Your task to perform on an android device: turn pop-ups off in chrome Image 0: 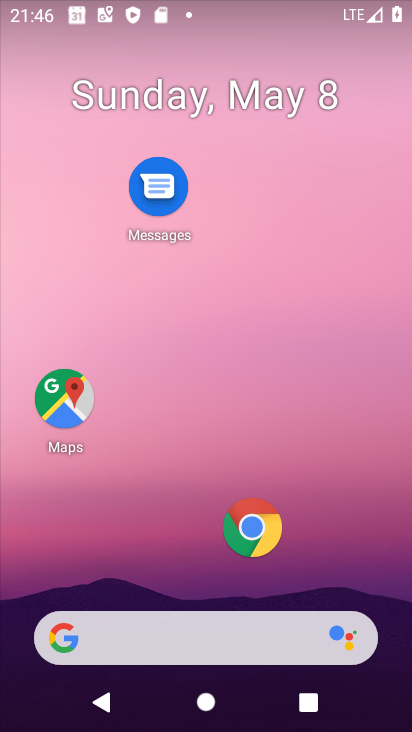
Step 0: click (254, 527)
Your task to perform on an android device: turn pop-ups off in chrome Image 1: 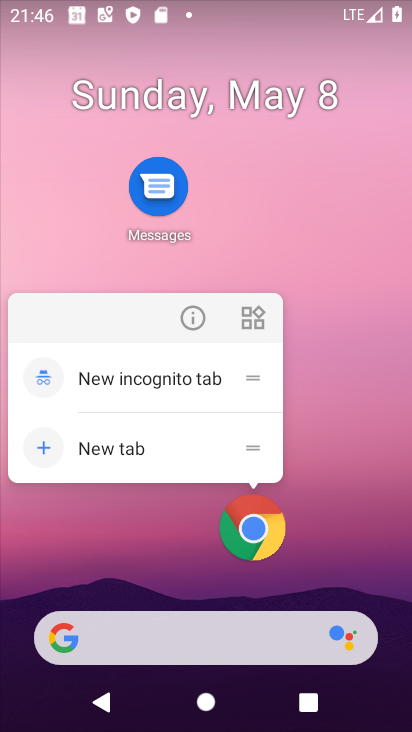
Step 1: click (362, 416)
Your task to perform on an android device: turn pop-ups off in chrome Image 2: 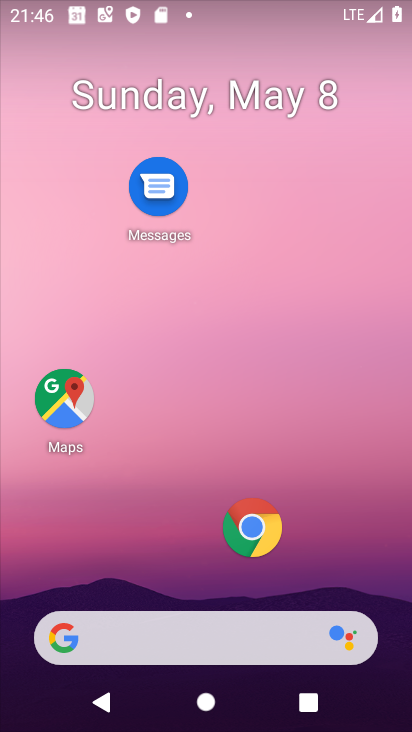
Step 2: click (261, 529)
Your task to perform on an android device: turn pop-ups off in chrome Image 3: 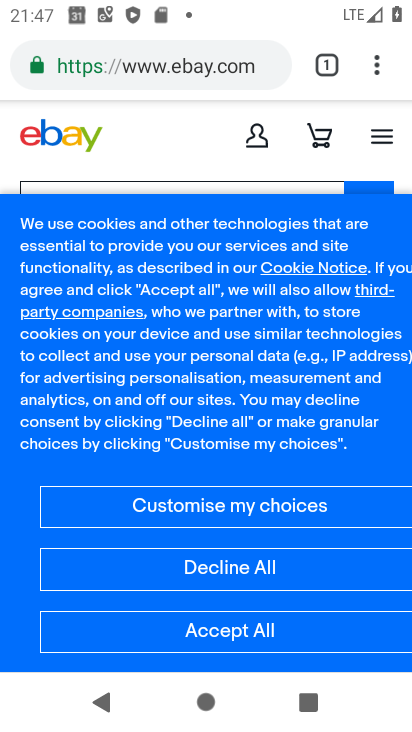
Step 3: click (364, 61)
Your task to perform on an android device: turn pop-ups off in chrome Image 4: 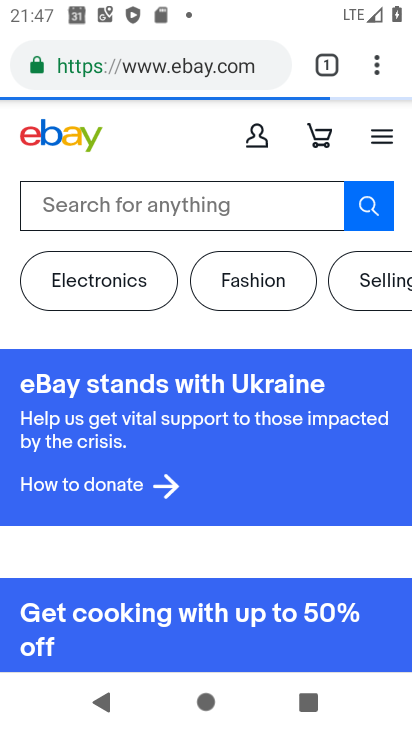
Step 4: click (365, 61)
Your task to perform on an android device: turn pop-ups off in chrome Image 5: 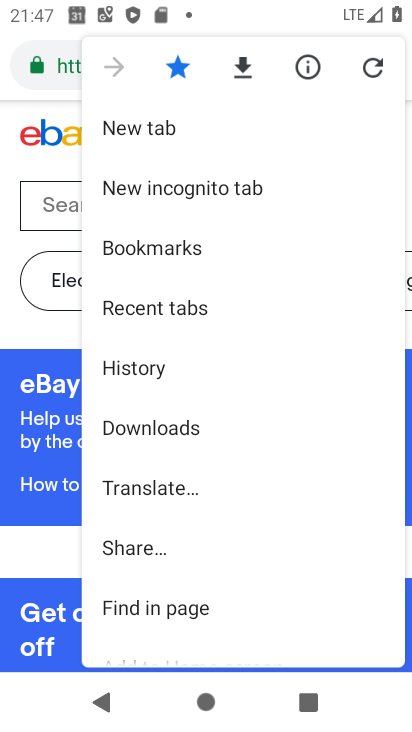
Step 5: drag from (191, 549) to (198, 148)
Your task to perform on an android device: turn pop-ups off in chrome Image 6: 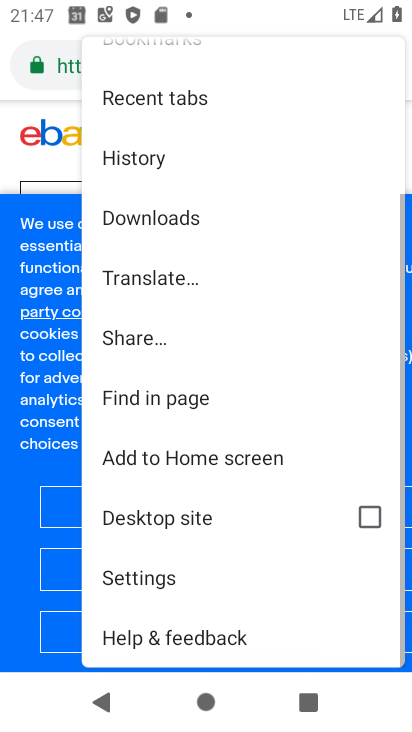
Step 6: click (182, 575)
Your task to perform on an android device: turn pop-ups off in chrome Image 7: 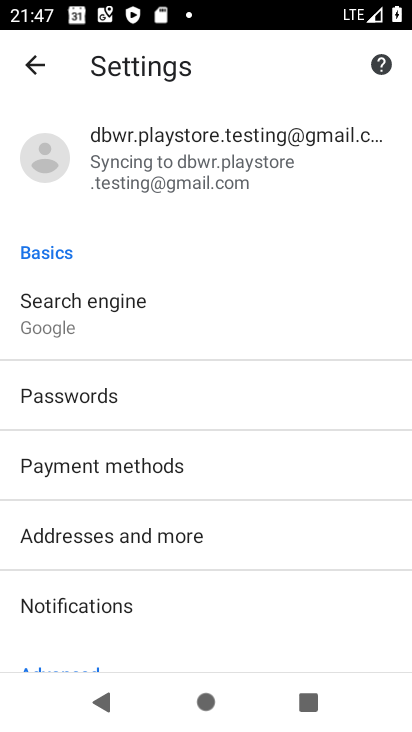
Step 7: drag from (239, 552) to (253, 241)
Your task to perform on an android device: turn pop-ups off in chrome Image 8: 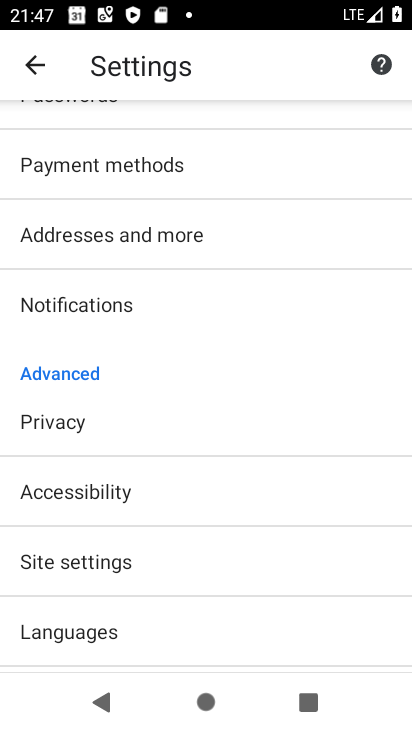
Step 8: drag from (165, 594) to (179, 325)
Your task to perform on an android device: turn pop-ups off in chrome Image 9: 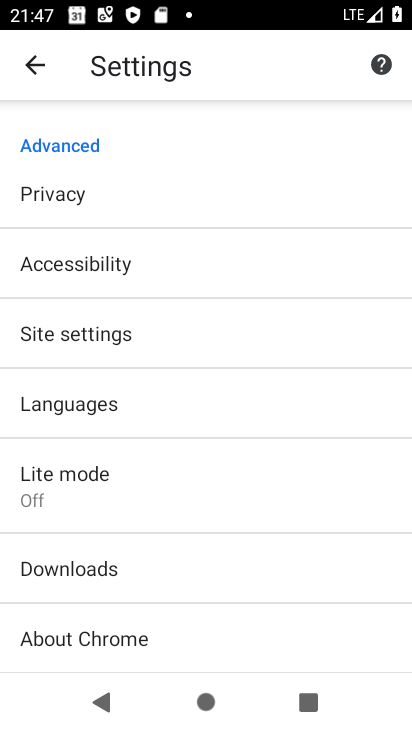
Step 9: click (74, 326)
Your task to perform on an android device: turn pop-ups off in chrome Image 10: 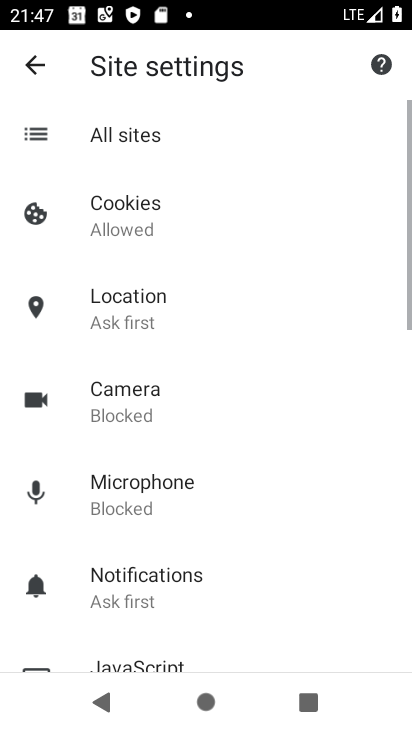
Step 10: drag from (244, 604) to (310, 194)
Your task to perform on an android device: turn pop-ups off in chrome Image 11: 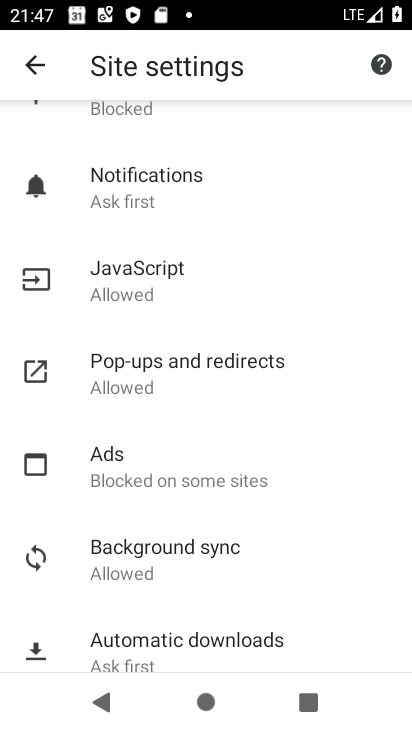
Step 11: click (134, 370)
Your task to perform on an android device: turn pop-ups off in chrome Image 12: 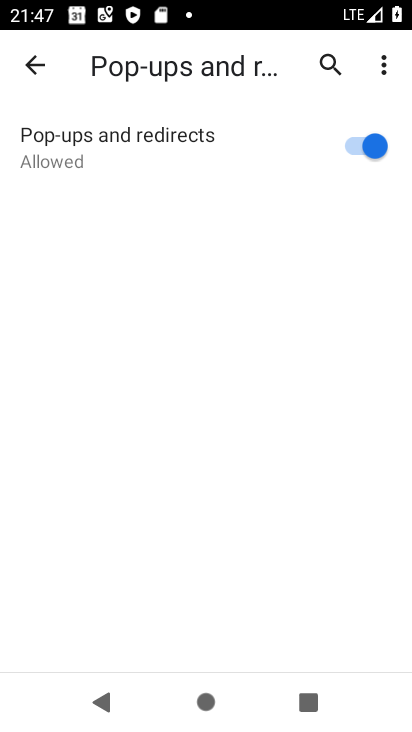
Step 12: click (362, 144)
Your task to perform on an android device: turn pop-ups off in chrome Image 13: 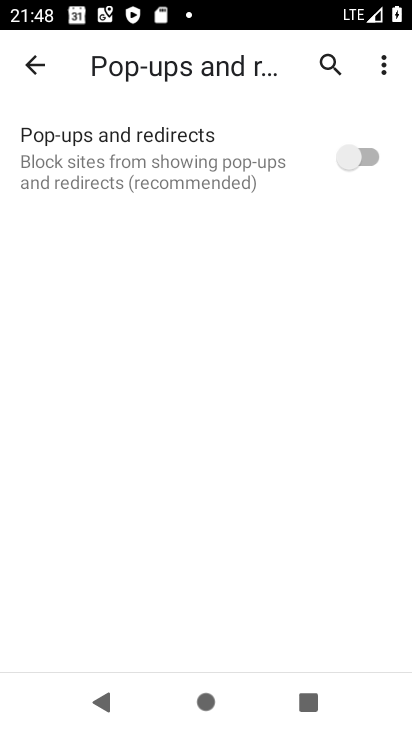
Step 13: task complete